Your task to perform on an android device: Open Google Chrome and open the bookmarks view Image 0: 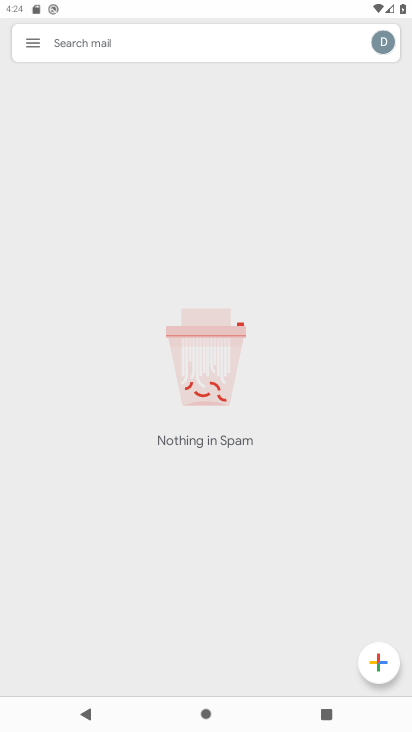
Step 0: press home button
Your task to perform on an android device: Open Google Chrome and open the bookmarks view Image 1: 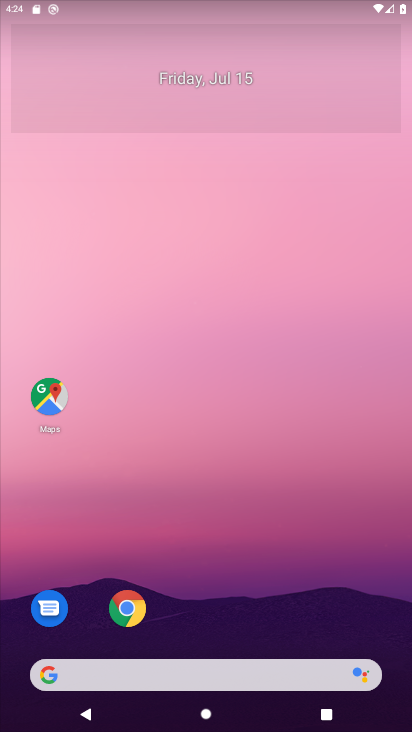
Step 1: click (118, 608)
Your task to perform on an android device: Open Google Chrome and open the bookmarks view Image 2: 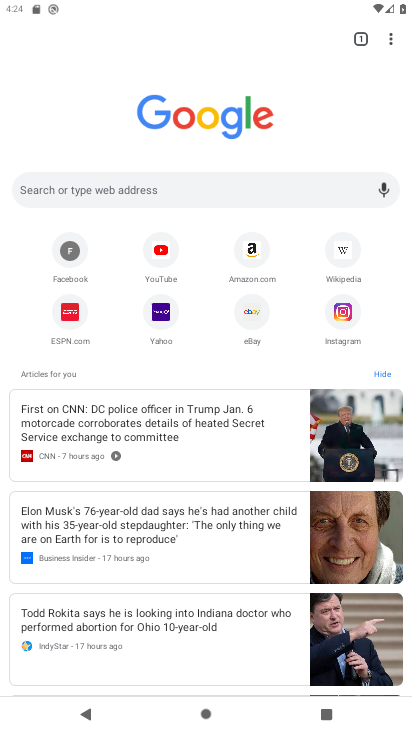
Step 2: click (384, 32)
Your task to perform on an android device: Open Google Chrome and open the bookmarks view Image 3: 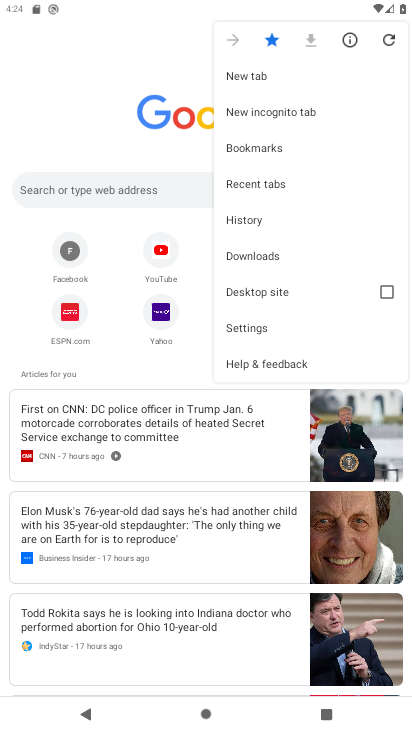
Step 3: click (258, 140)
Your task to perform on an android device: Open Google Chrome and open the bookmarks view Image 4: 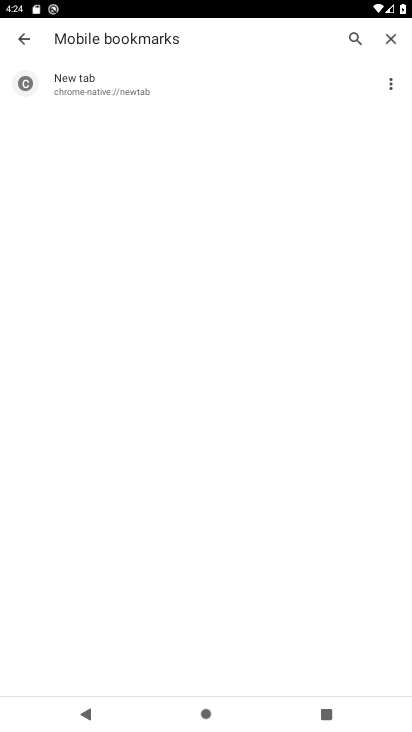
Step 4: task complete